Your task to perform on an android device: Open maps Image 0: 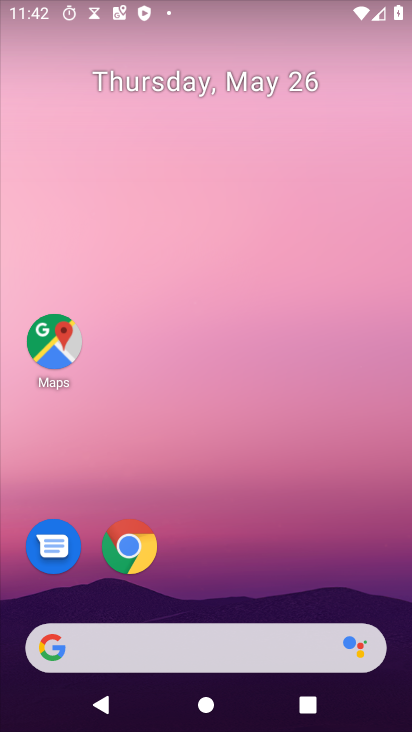
Step 0: drag from (378, 530) to (384, 106)
Your task to perform on an android device: Open maps Image 1: 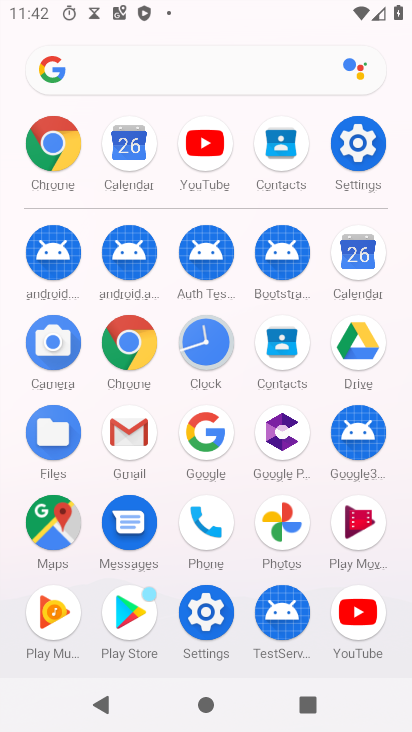
Step 1: click (61, 510)
Your task to perform on an android device: Open maps Image 2: 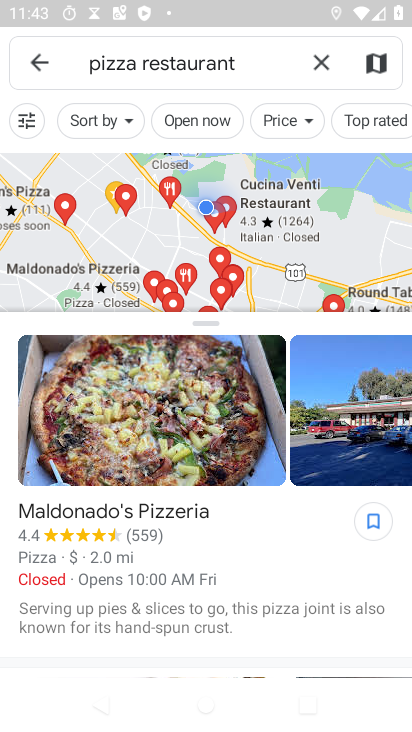
Step 2: task complete